Your task to perform on an android device: Is it going to rain tomorrow? Image 0: 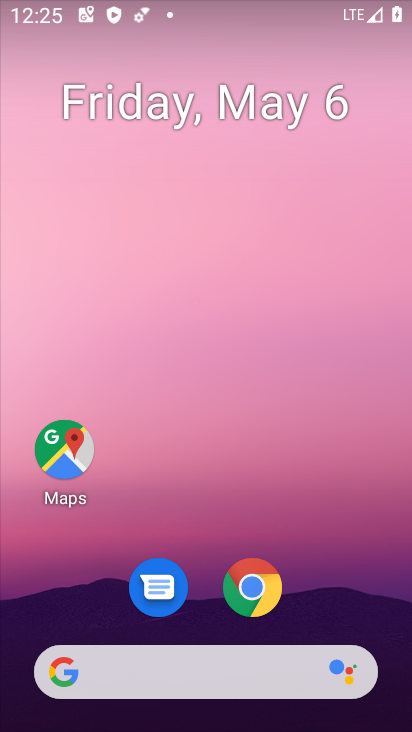
Step 0: click (165, 670)
Your task to perform on an android device: Is it going to rain tomorrow? Image 1: 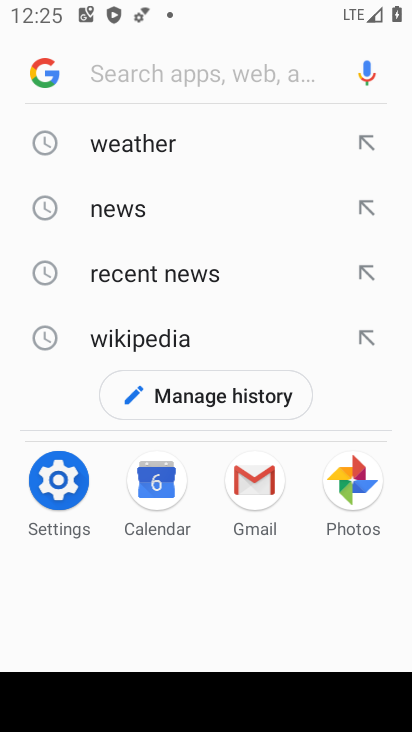
Step 1: click (127, 140)
Your task to perform on an android device: Is it going to rain tomorrow? Image 2: 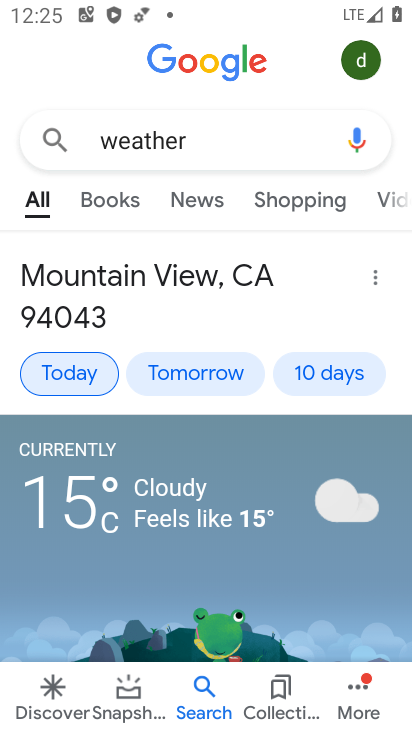
Step 2: click (183, 369)
Your task to perform on an android device: Is it going to rain tomorrow? Image 3: 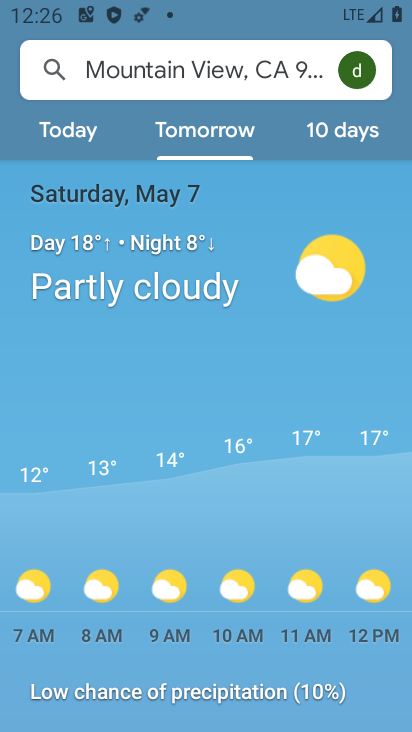
Step 3: task complete